Your task to perform on an android device: Go to ESPN.com Image 0: 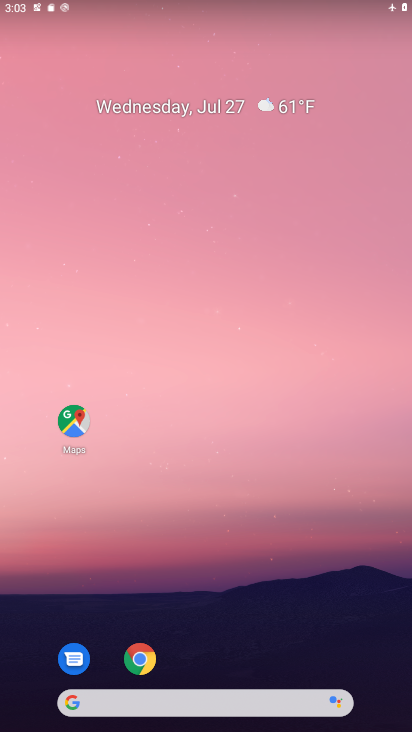
Step 0: drag from (225, 662) to (192, 90)
Your task to perform on an android device: Go to ESPN.com Image 1: 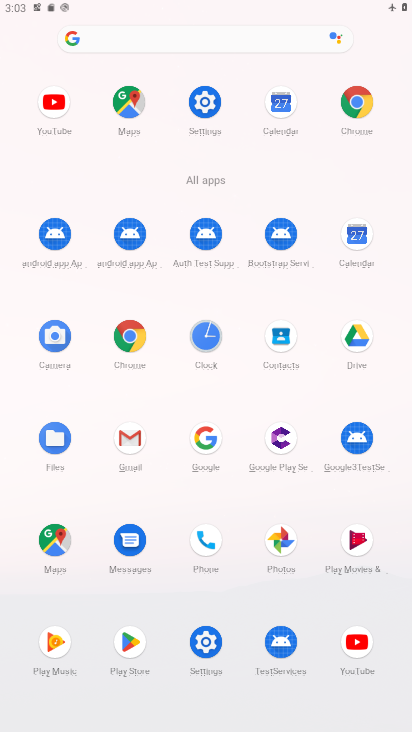
Step 1: click (353, 109)
Your task to perform on an android device: Go to ESPN.com Image 2: 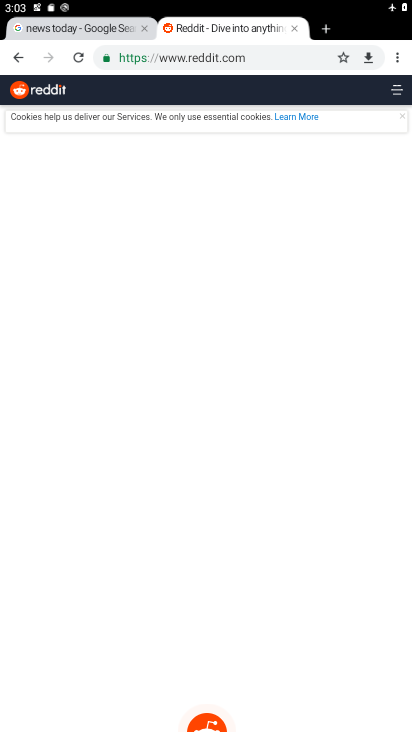
Step 2: click (244, 60)
Your task to perform on an android device: Go to ESPN.com Image 3: 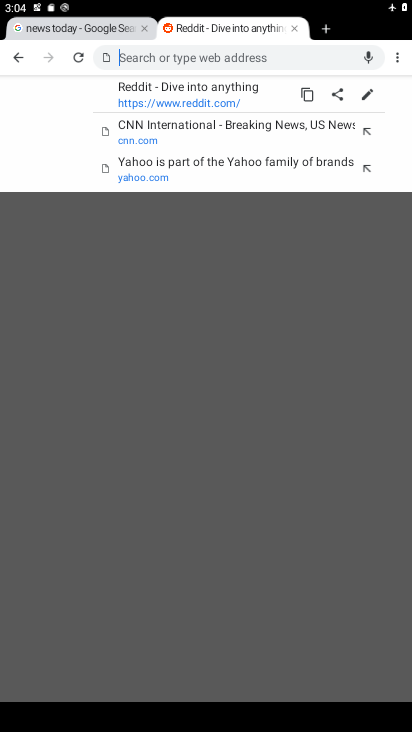
Step 3: type "espn.com"
Your task to perform on an android device: Go to ESPN.com Image 4: 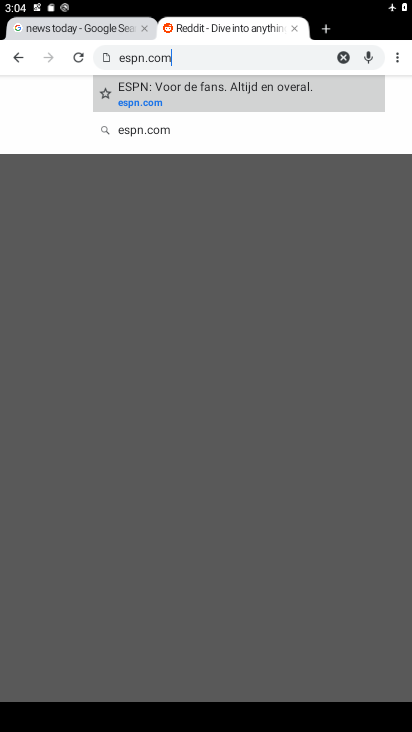
Step 4: click (158, 88)
Your task to perform on an android device: Go to ESPN.com Image 5: 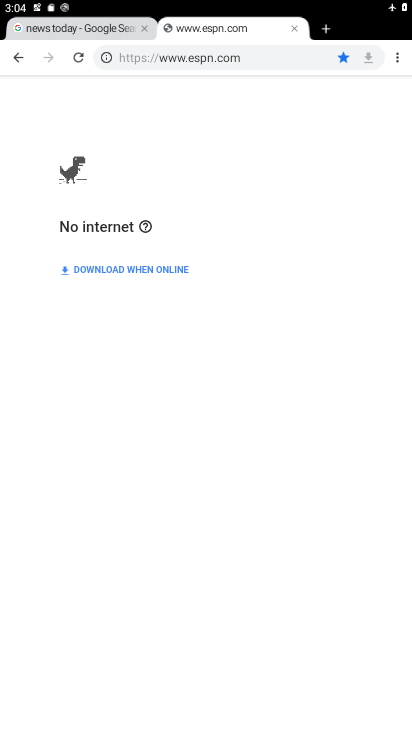
Step 5: task complete